Your task to perform on an android device: Open CNN.com Image 0: 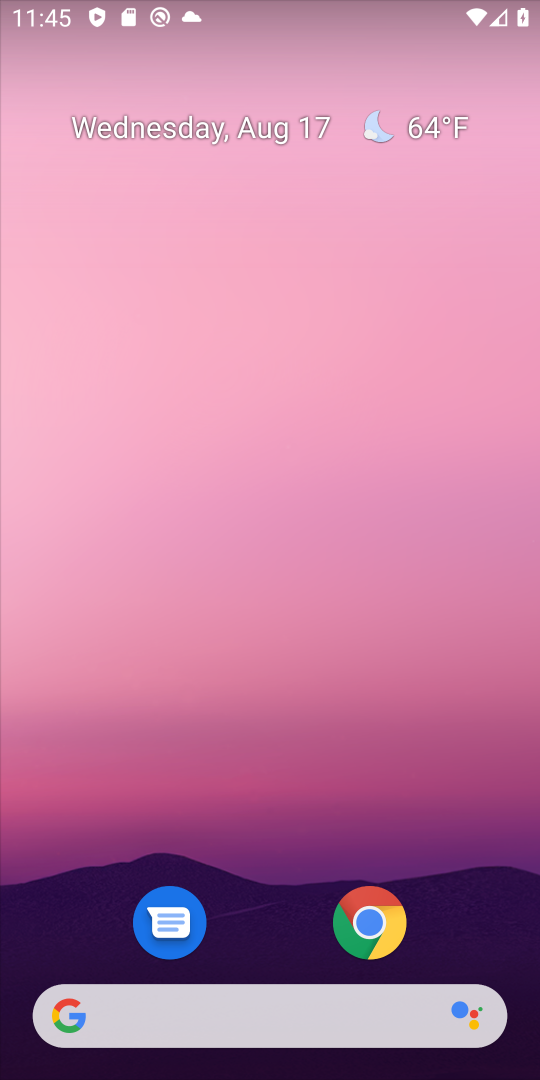
Step 0: press home button
Your task to perform on an android device: Open CNN.com Image 1: 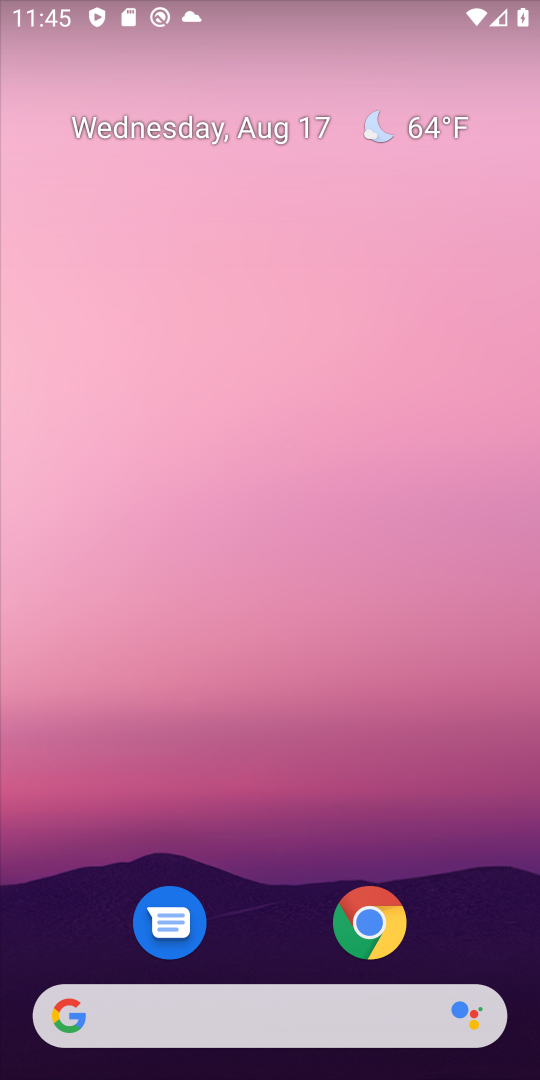
Step 1: click (230, 1004)
Your task to perform on an android device: Open CNN.com Image 2: 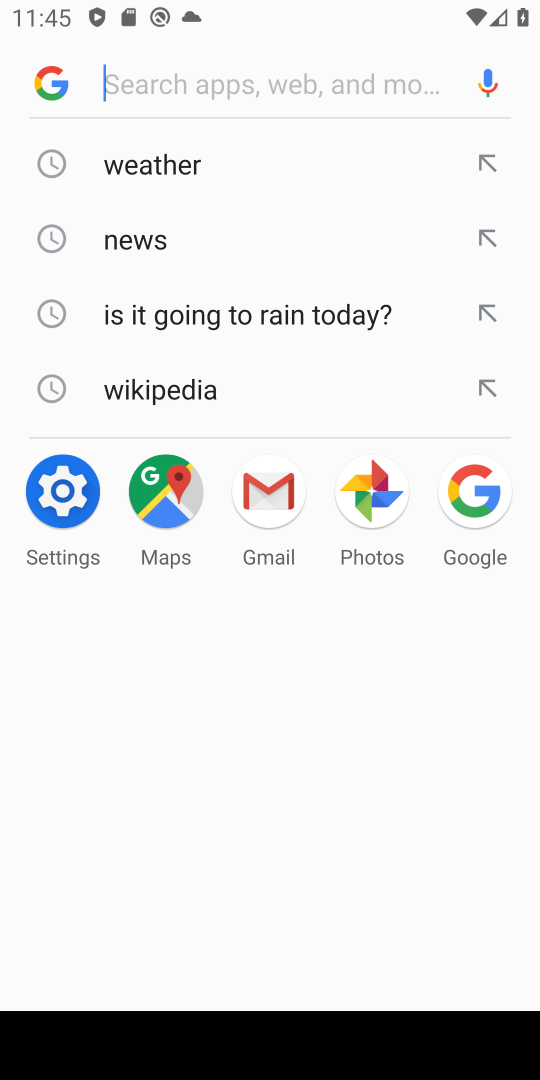
Step 2: type "cnn.com"
Your task to perform on an android device: Open CNN.com Image 3: 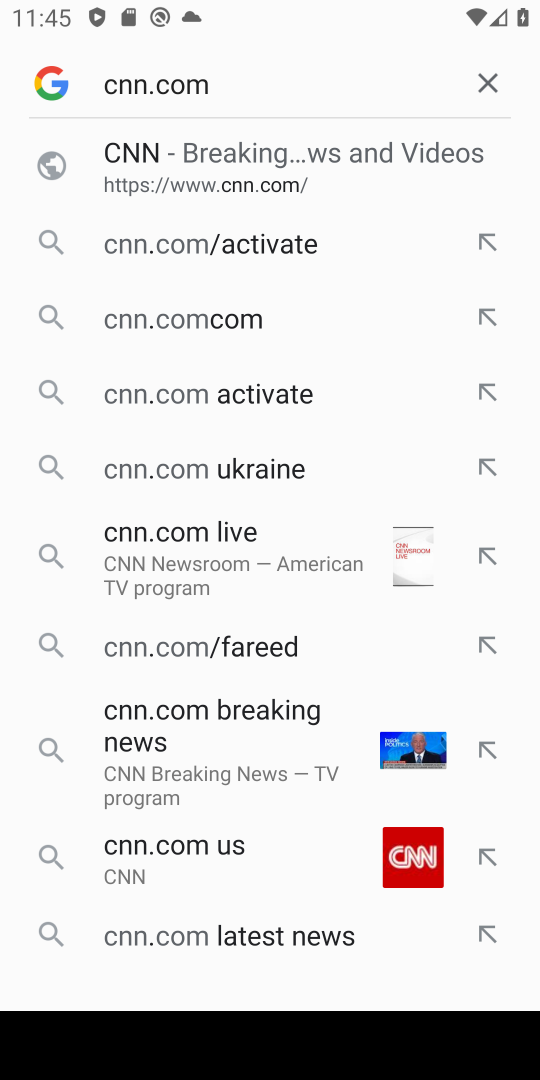
Step 3: click (213, 154)
Your task to perform on an android device: Open CNN.com Image 4: 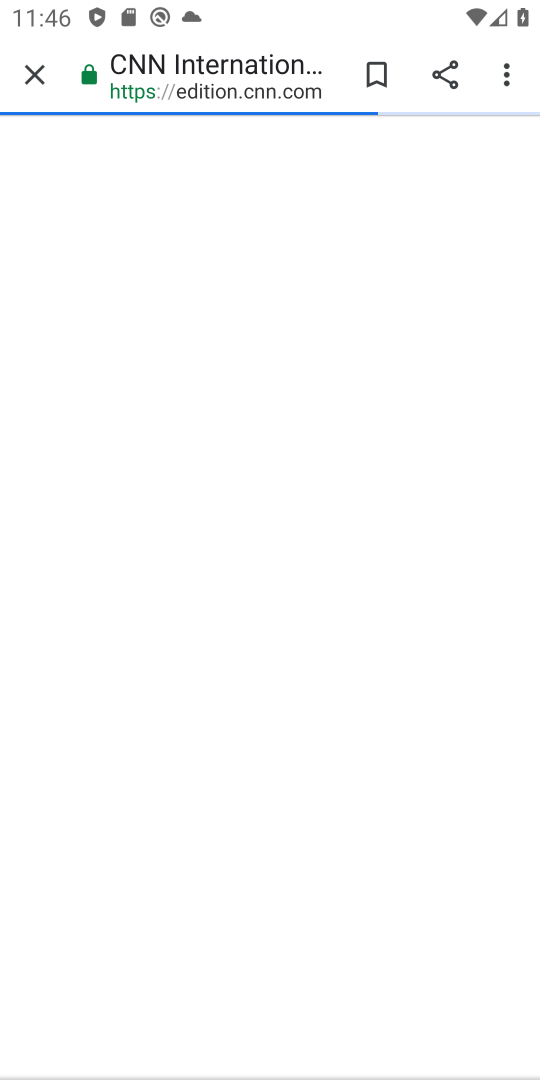
Step 4: click (230, 288)
Your task to perform on an android device: Open CNN.com Image 5: 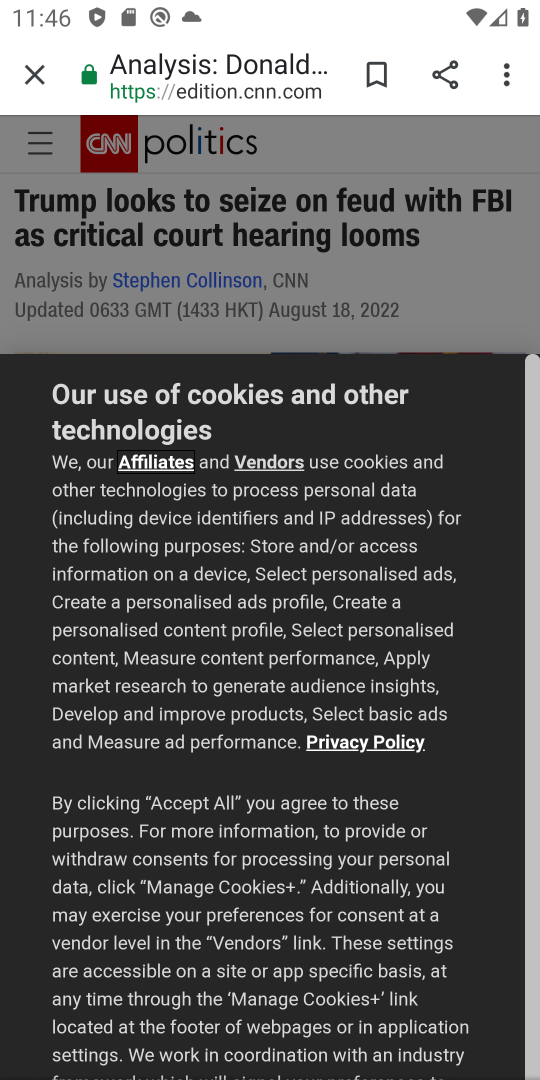
Step 5: task complete